Your task to perform on an android device: turn on priority inbox in the gmail app Image 0: 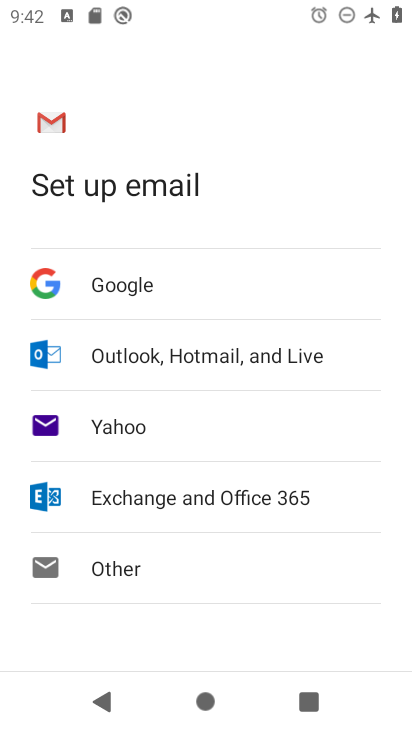
Step 0: press home button
Your task to perform on an android device: turn on priority inbox in the gmail app Image 1: 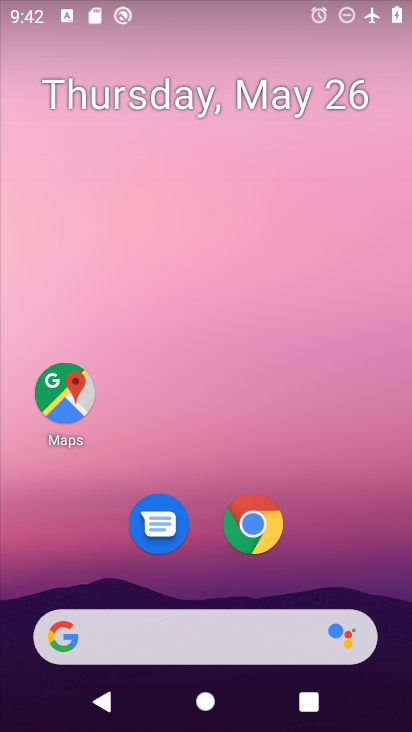
Step 1: drag from (345, 509) to (287, 43)
Your task to perform on an android device: turn on priority inbox in the gmail app Image 2: 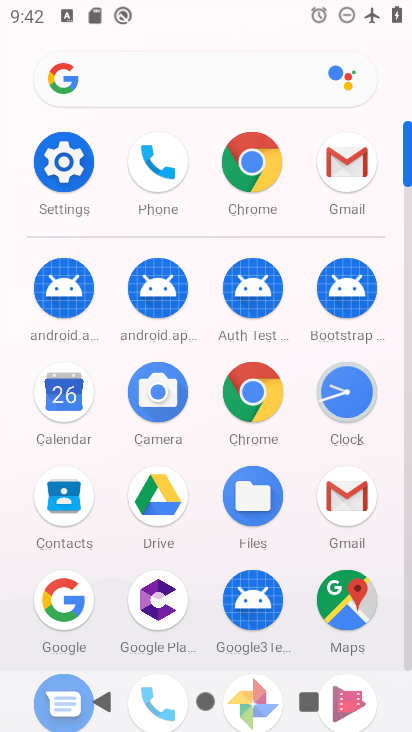
Step 2: click (335, 159)
Your task to perform on an android device: turn on priority inbox in the gmail app Image 3: 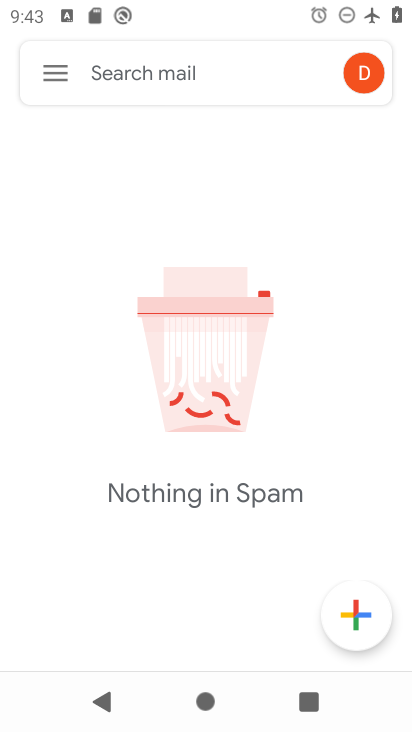
Step 3: click (55, 66)
Your task to perform on an android device: turn on priority inbox in the gmail app Image 4: 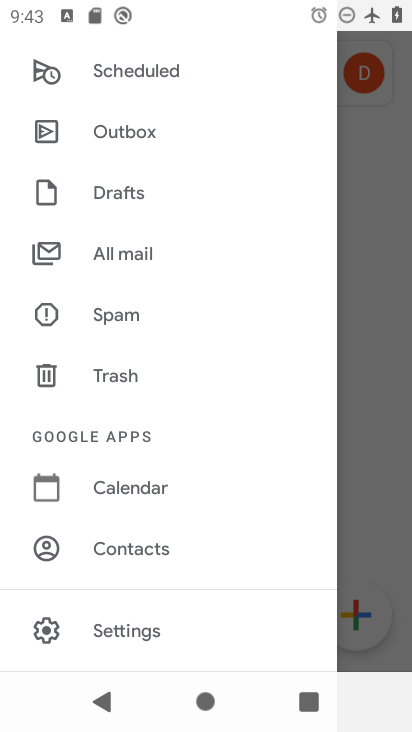
Step 4: click (170, 613)
Your task to perform on an android device: turn on priority inbox in the gmail app Image 5: 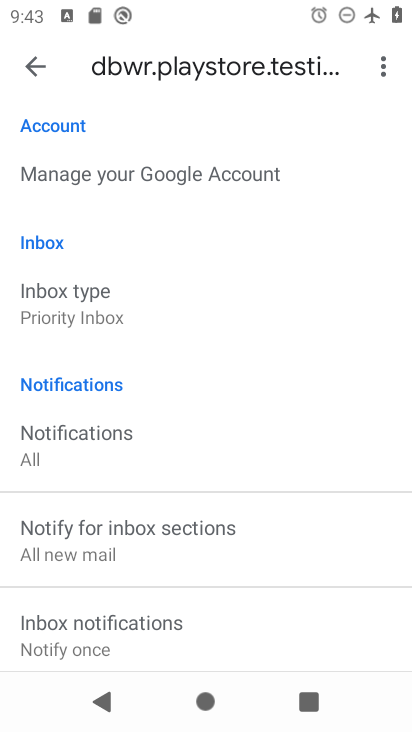
Step 5: click (112, 314)
Your task to perform on an android device: turn on priority inbox in the gmail app Image 6: 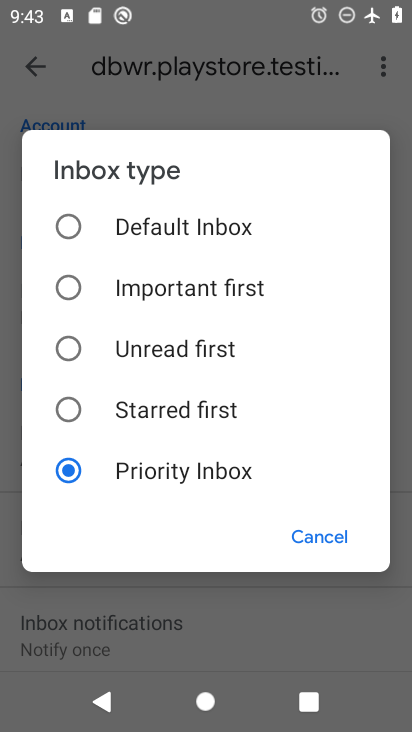
Step 6: click (321, 539)
Your task to perform on an android device: turn on priority inbox in the gmail app Image 7: 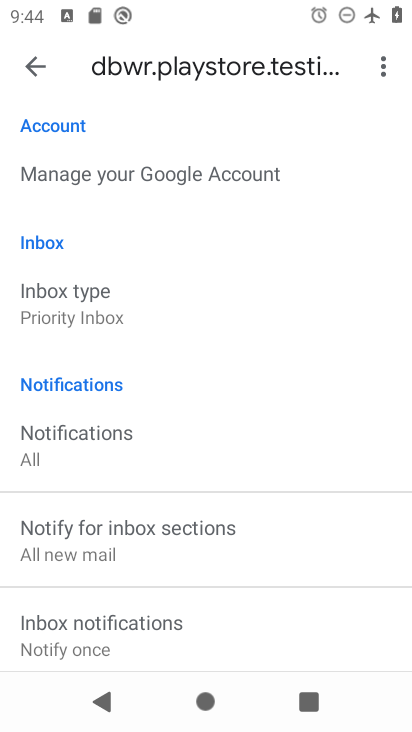
Step 7: task complete